Your task to perform on an android device: Is it going to rain this weekend? Image 0: 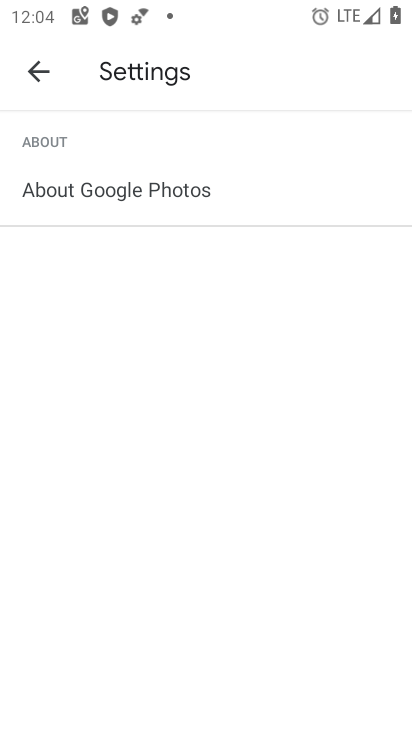
Step 0: press home button
Your task to perform on an android device: Is it going to rain this weekend? Image 1: 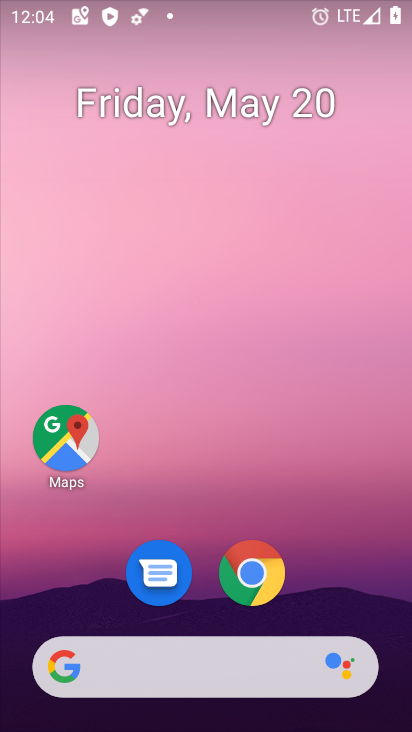
Step 1: click (195, 662)
Your task to perform on an android device: Is it going to rain this weekend? Image 2: 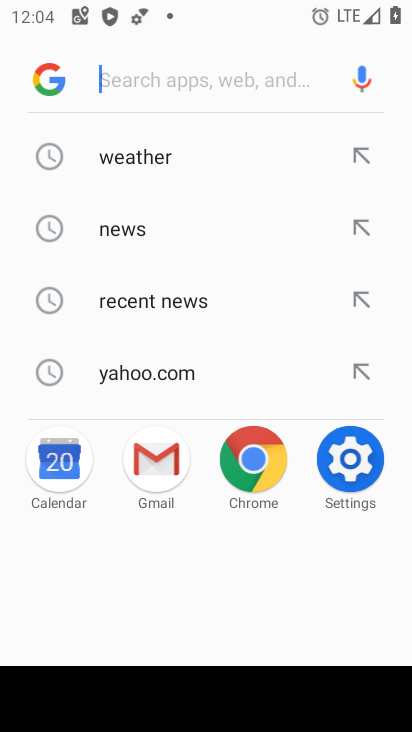
Step 2: click (147, 157)
Your task to perform on an android device: Is it going to rain this weekend? Image 3: 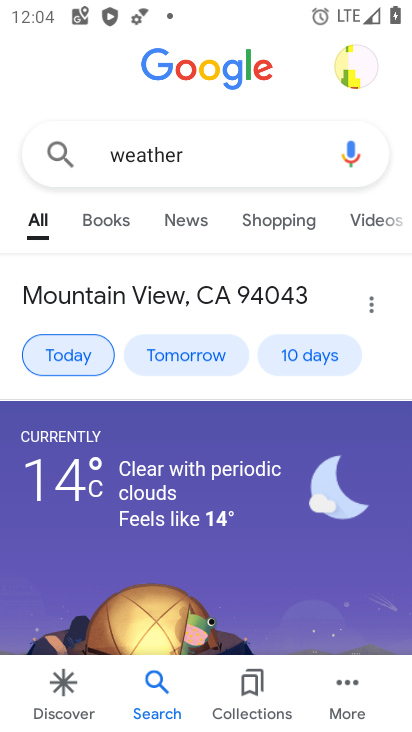
Step 3: drag from (181, 384) to (203, 163)
Your task to perform on an android device: Is it going to rain this weekend? Image 4: 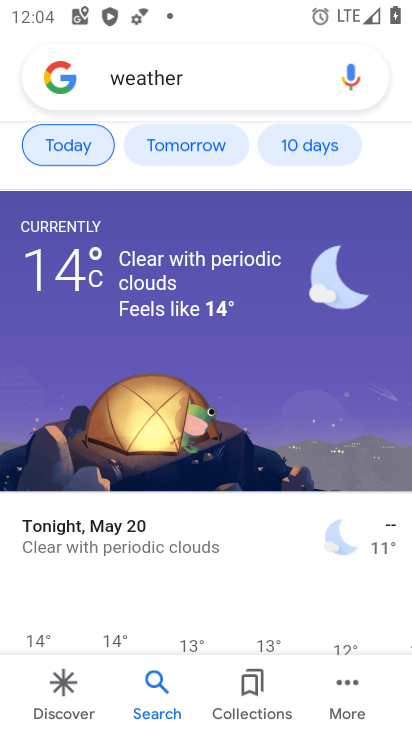
Step 4: click (313, 147)
Your task to perform on an android device: Is it going to rain this weekend? Image 5: 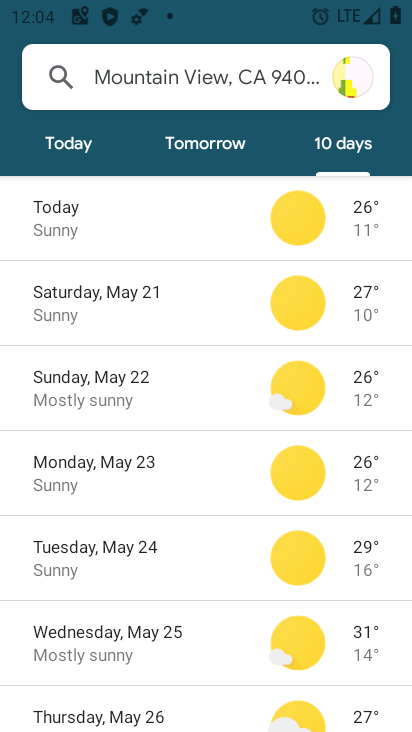
Step 5: task complete